Your task to perform on an android device: change timer sound Image 0: 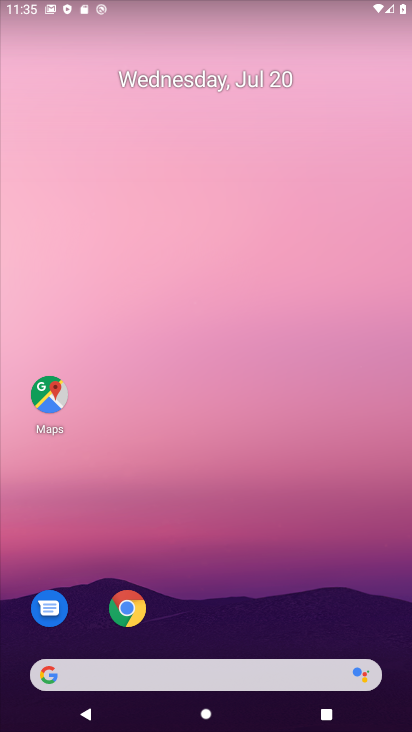
Step 0: drag from (251, 623) to (272, 88)
Your task to perform on an android device: change timer sound Image 1: 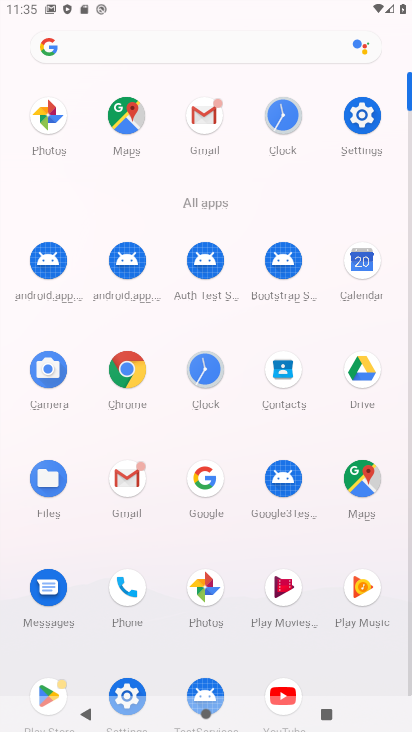
Step 1: click (203, 372)
Your task to perform on an android device: change timer sound Image 2: 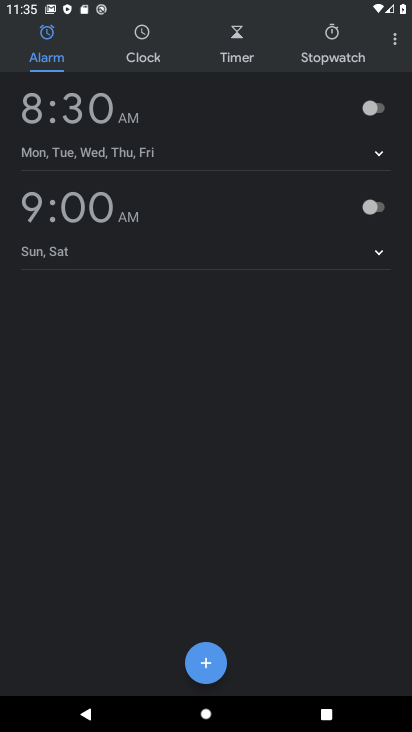
Step 2: click (397, 40)
Your task to perform on an android device: change timer sound Image 3: 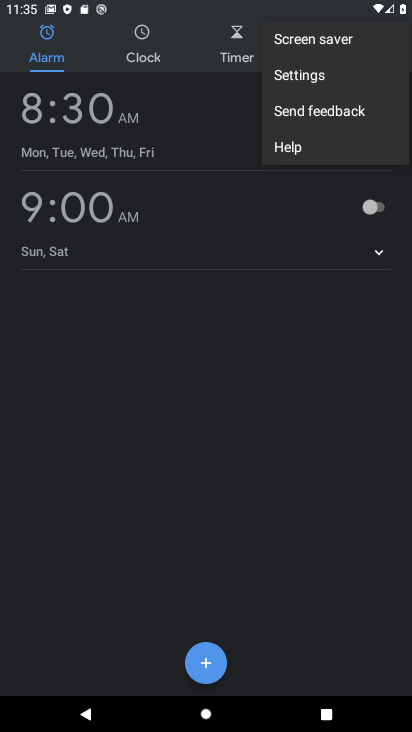
Step 3: click (320, 76)
Your task to perform on an android device: change timer sound Image 4: 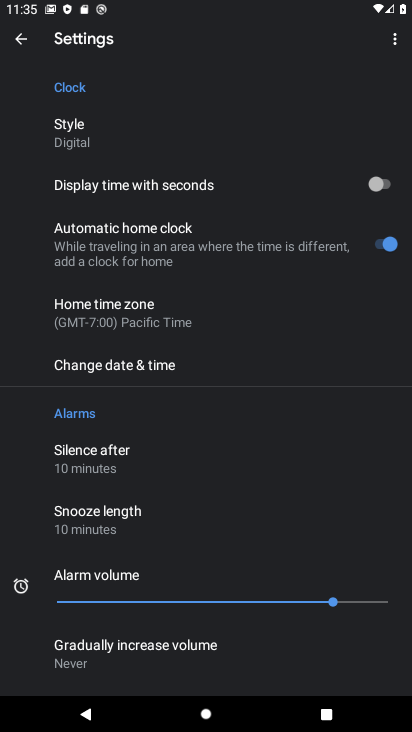
Step 4: drag from (224, 431) to (209, 134)
Your task to perform on an android device: change timer sound Image 5: 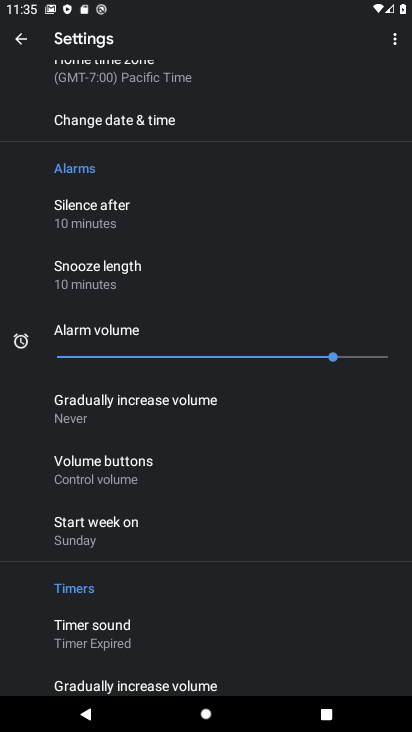
Step 5: click (109, 636)
Your task to perform on an android device: change timer sound Image 6: 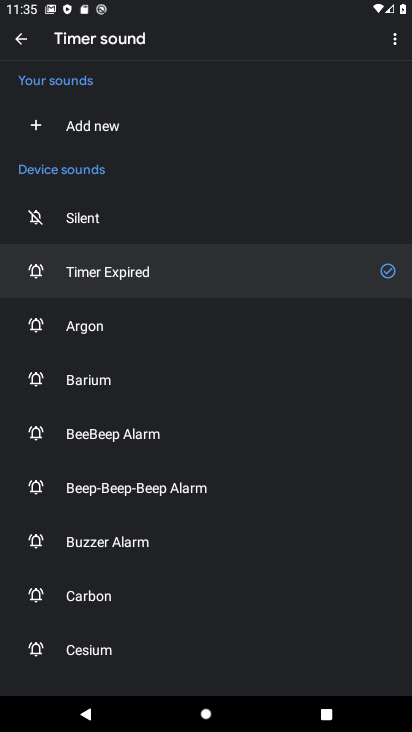
Step 6: click (64, 330)
Your task to perform on an android device: change timer sound Image 7: 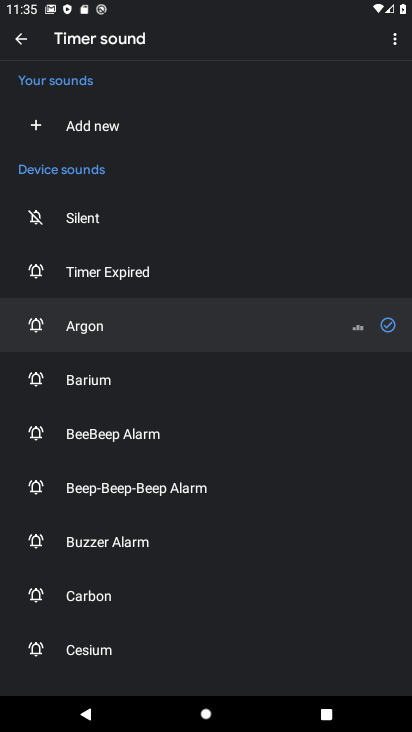
Step 7: task complete